Your task to perform on an android device: Go to settings Image 0: 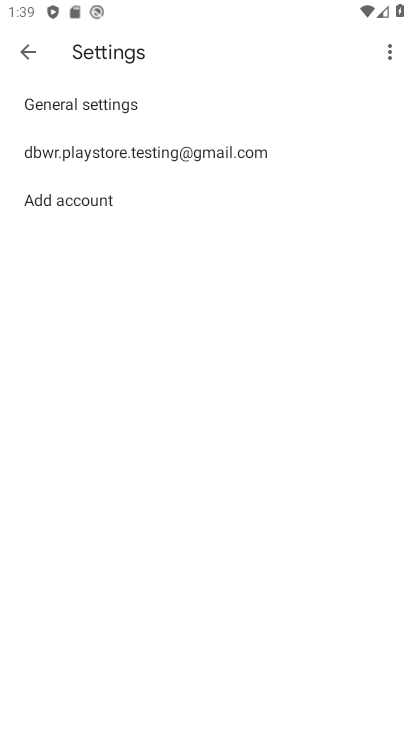
Step 0: press home button
Your task to perform on an android device: Go to settings Image 1: 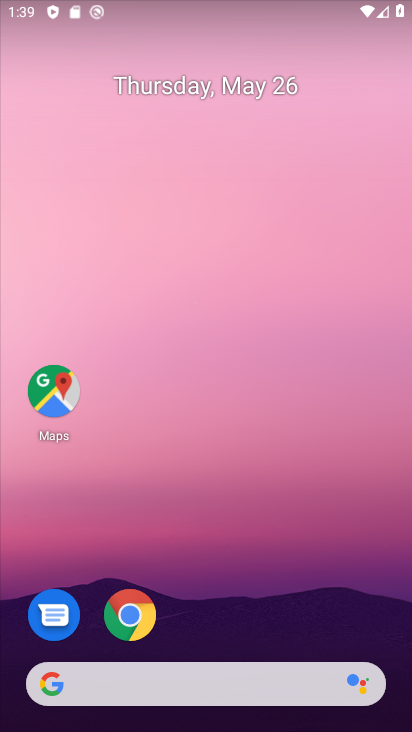
Step 1: drag from (225, 635) to (213, 24)
Your task to perform on an android device: Go to settings Image 2: 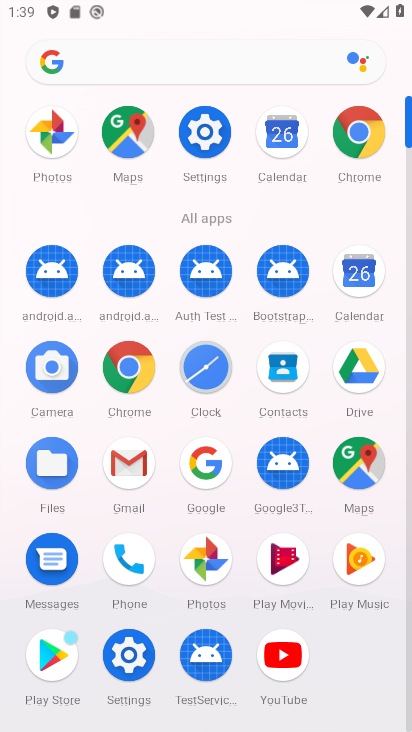
Step 2: click (205, 125)
Your task to perform on an android device: Go to settings Image 3: 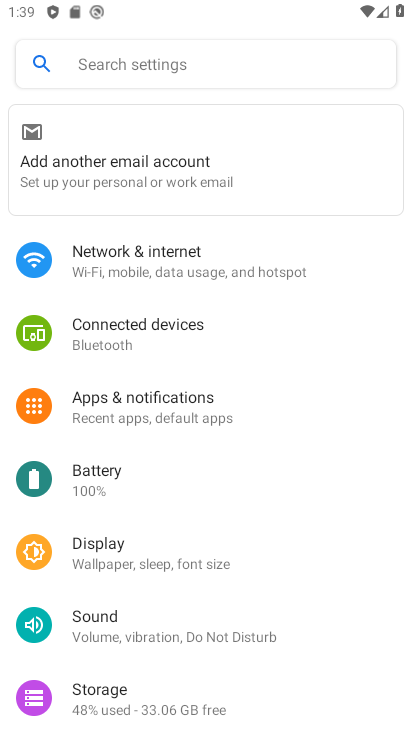
Step 3: task complete